Your task to perform on an android device: toggle pop-ups in chrome Image 0: 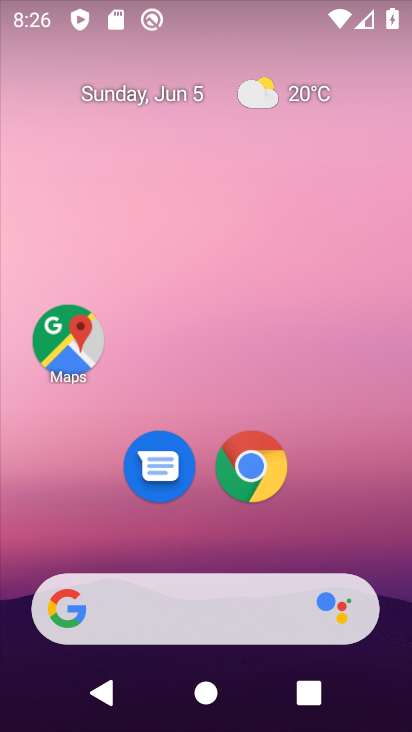
Step 0: click (241, 472)
Your task to perform on an android device: toggle pop-ups in chrome Image 1: 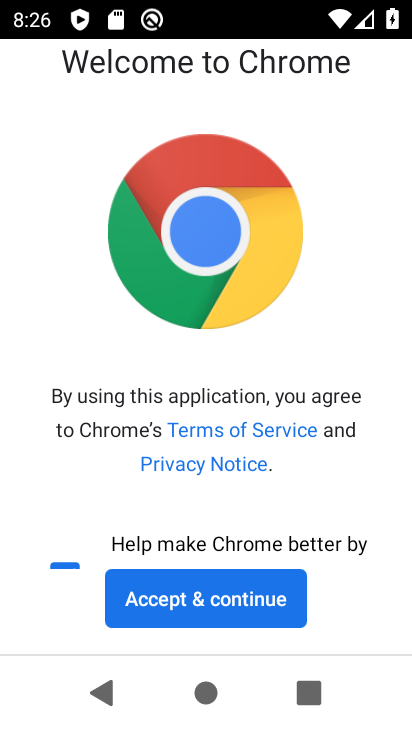
Step 1: click (179, 607)
Your task to perform on an android device: toggle pop-ups in chrome Image 2: 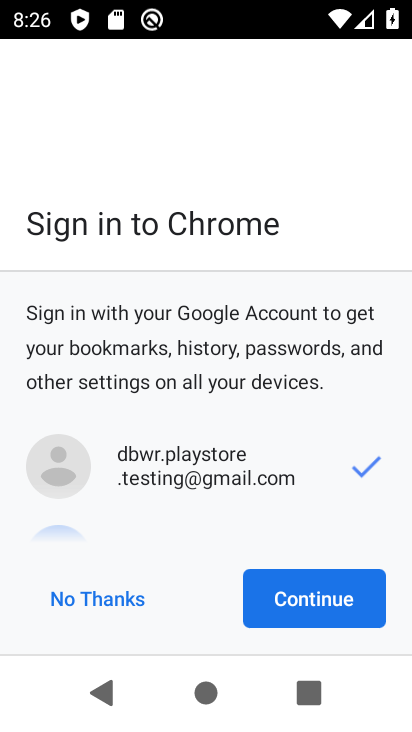
Step 2: click (300, 601)
Your task to perform on an android device: toggle pop-ups in chrome Image 3: 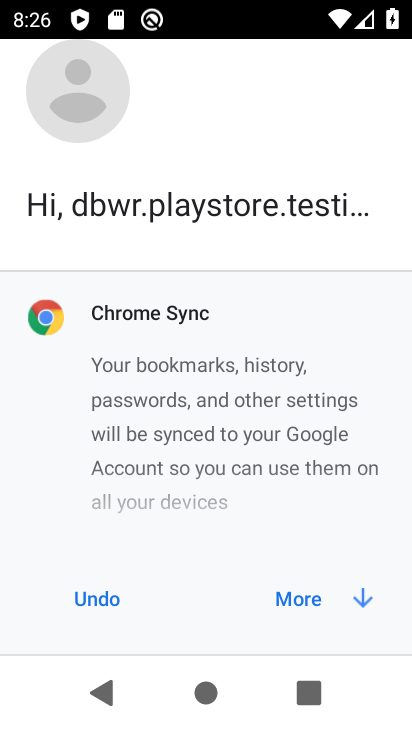
Step 3: click (300, 601)
Your task to perform on an android device: toggle pop-ups in chrome Image 4: 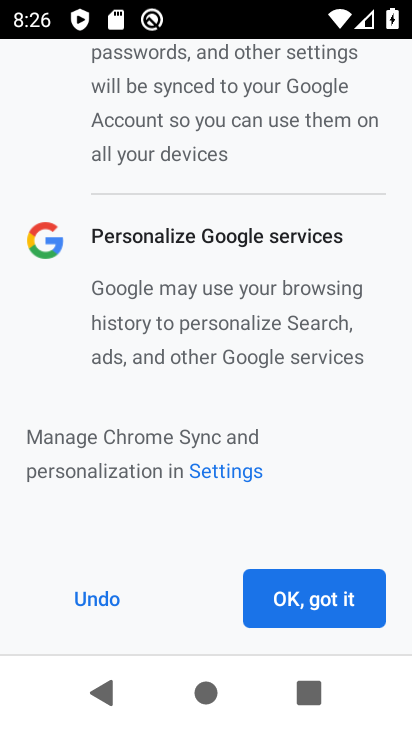
Step 4: click (300, 601)
Your task to perform on an android device: toggle pop-ups in chrome Image 5: 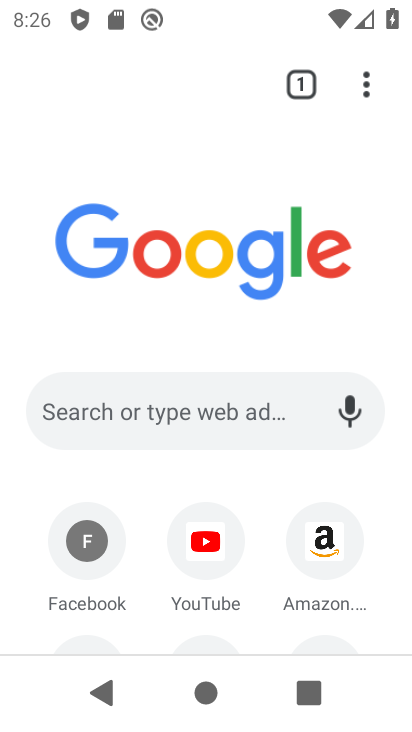
Step 5: click (374, 85)
Your task to perform on an android device: toggle pop-ups in chrome Image 6: 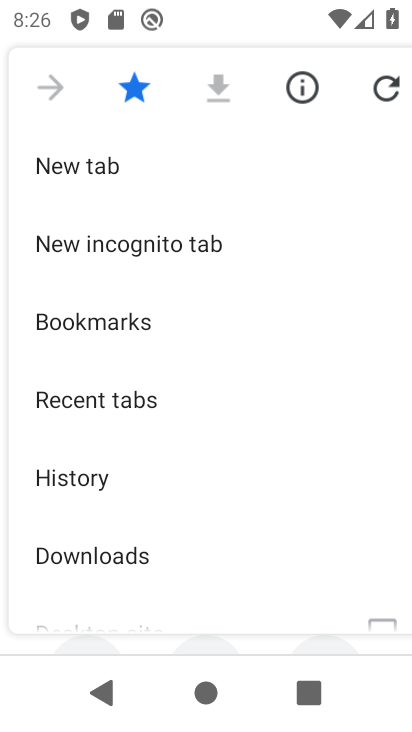
Step 6: drag from (193, 584) to (215, 324)
Your task to perform on an android device: toggle pop-ups in chrome Image 7: 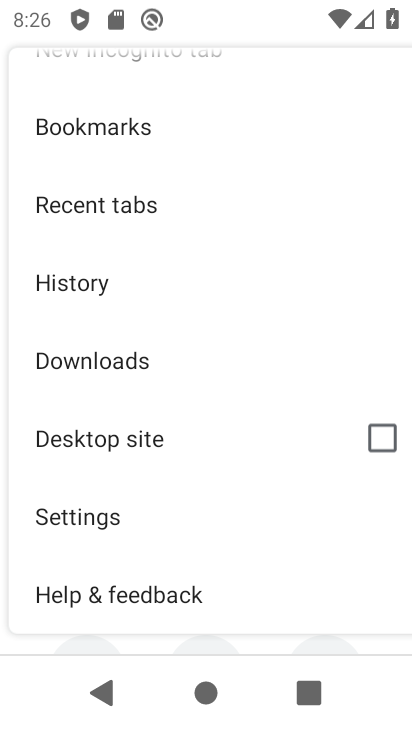
Step 7: click (90, 510)
Your task to perform on an android device: toggle pop-ups in chrome Image 8: 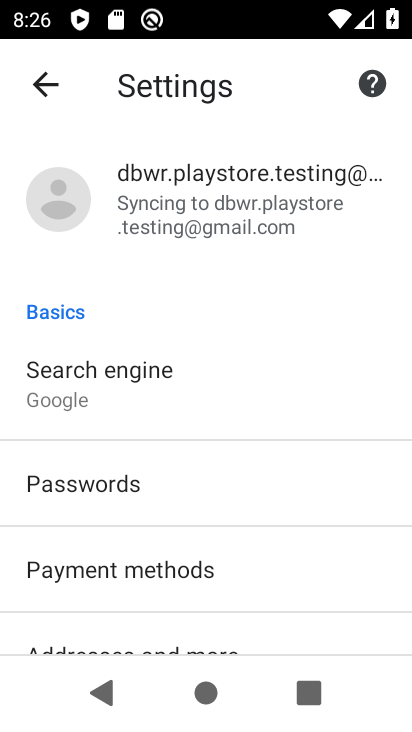
Step 8: drag from (144, 631) to (154, 318)
Your task to perform on an android device: toggle pop-ups in chrome Image 9: 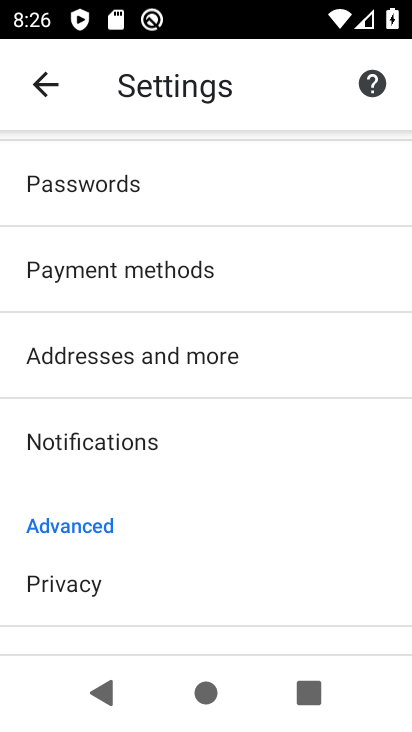
Step 9: drag from (149, 582) to (227, 325)
Your task to perform on an android device: toggle pop-ups in chrome Image 10: 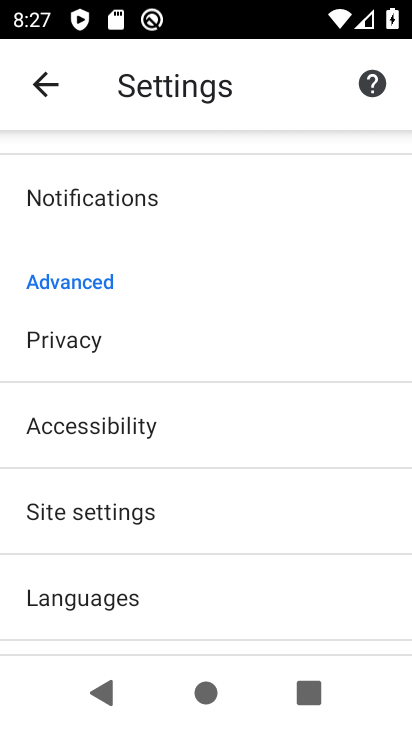
Step 10: click (120, 512)
Your task to perform on an android device: toggle pop-ups in chrome Image 11: 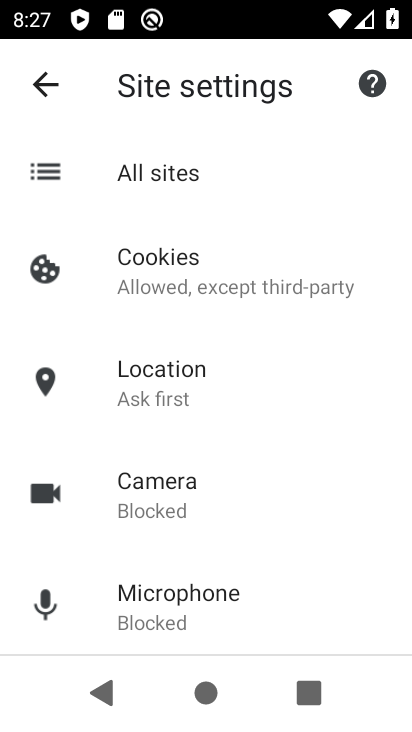
Step 11: drag from (170, 582) to (193, 222)
Your task to perform on an android device: toggle pop-ups in chrome Image 12: 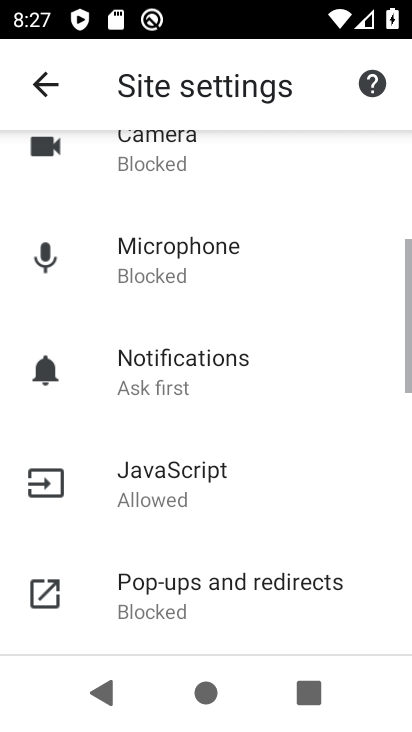
Step 12: click (210, 598)
Your task to perform on an android device: toggle pop-ups in chrome Image 13: 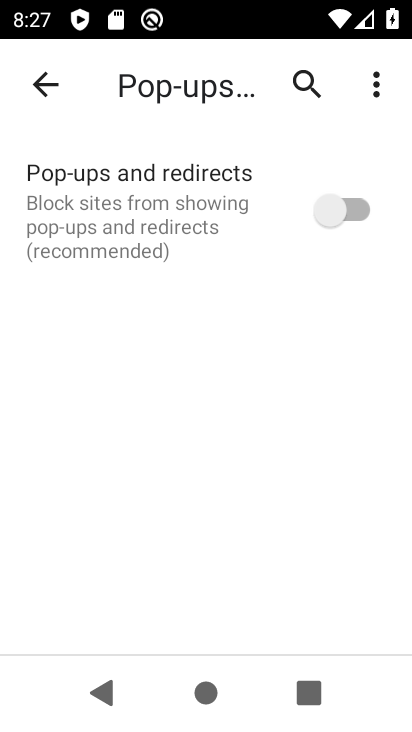
Step 13: click (348, 222)
Your task to perform on an android device: toggle pop-ups in chrome Image 14: 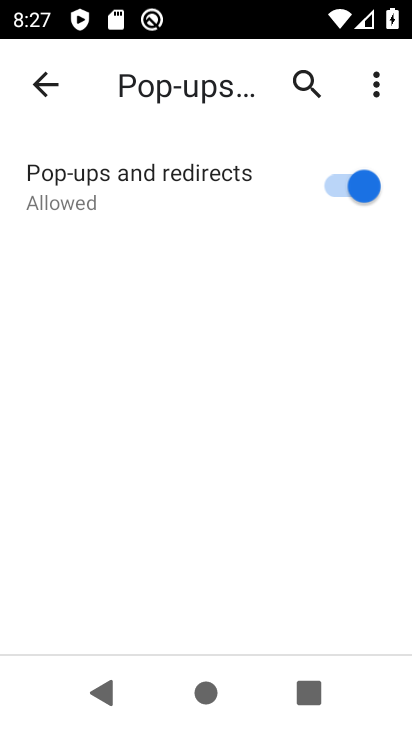
Step 14: task complete